Your task to perform on an android device: Open calendar and show me the fourth week of next month Image 0: 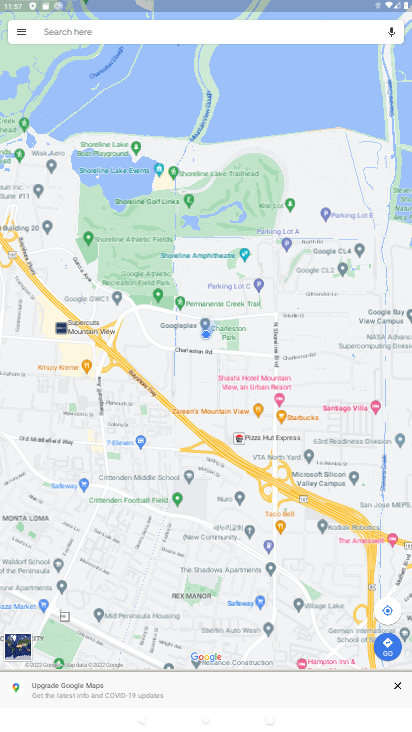
Step 0: press home button
Your task to perform on an android device: Open calendar and show me the fourth week of next month Image 1: 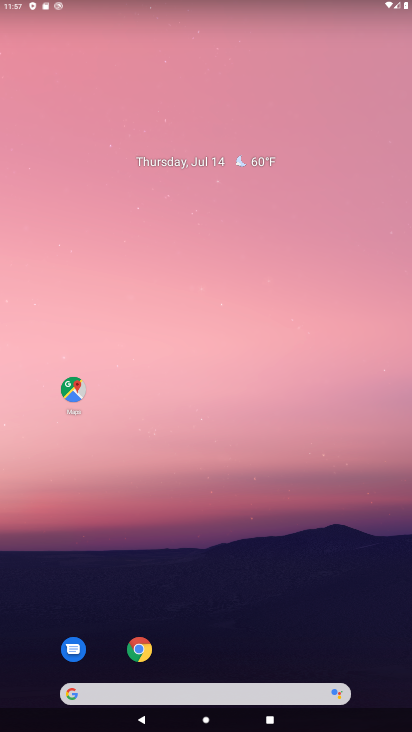
Step 1: drag from (190, 673) to (190, 391)
Your task to perform on an android device: Open calendar and show me the fourth week of next month Image 2: 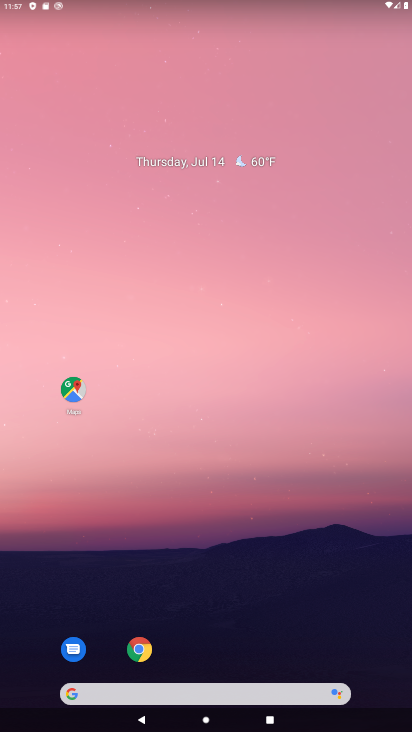
Step 2: drag from (225, 692) to (203, 168)
Your task to perform on an android device: Open calendar and show me the fourth week of next month Image 3: 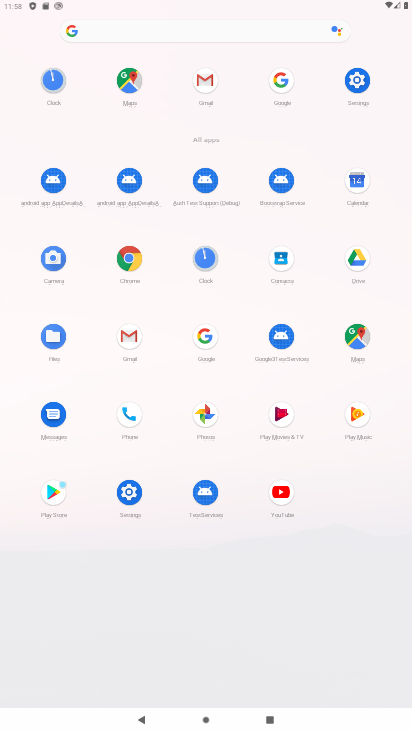
Step 3: click (352, 176)
Your task to perform on an android device: Open calendar and show me the fourth week of next month Image 4: 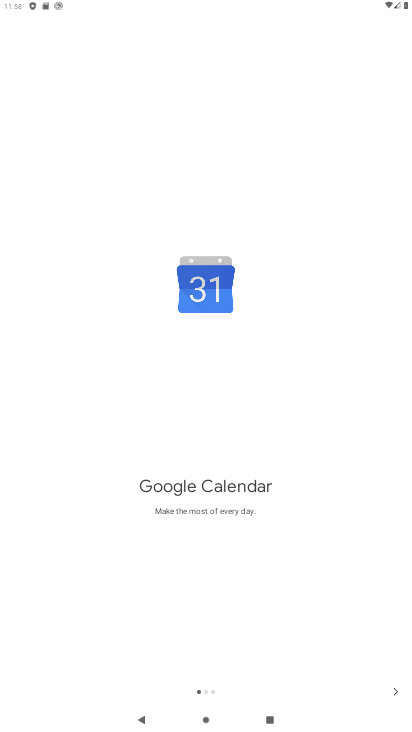
Step 4: click (387, 692)
Your task to perform on an android device: Open calendar and show me the fourth week of next month Image 5: 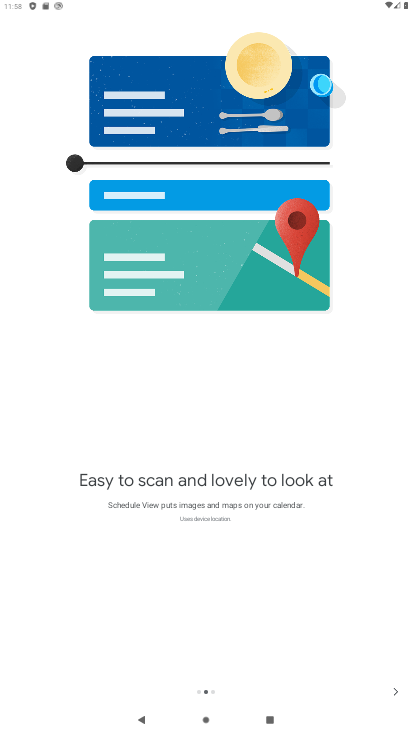
Step 5: click (387, 692)
Your task to perform on an android device: Open calendar and show me the fourth week of next month Image 6: 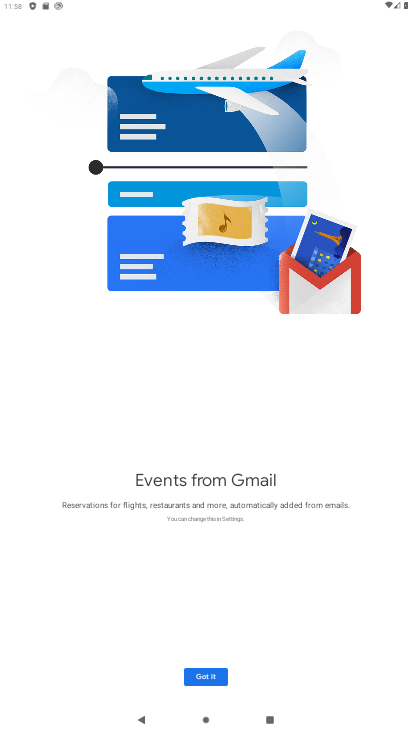
Step 6: click (218, 667)
Your task to perform on an android device: Open calendar and show me the fourth week of next month Image 7: 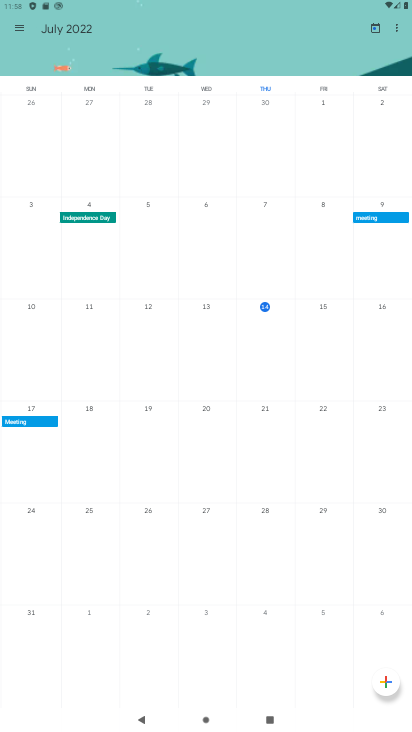
Step 7: click (15, 30)
Your task to perform on an android device: Open calendar and show me the fourth week of next month Image 8: 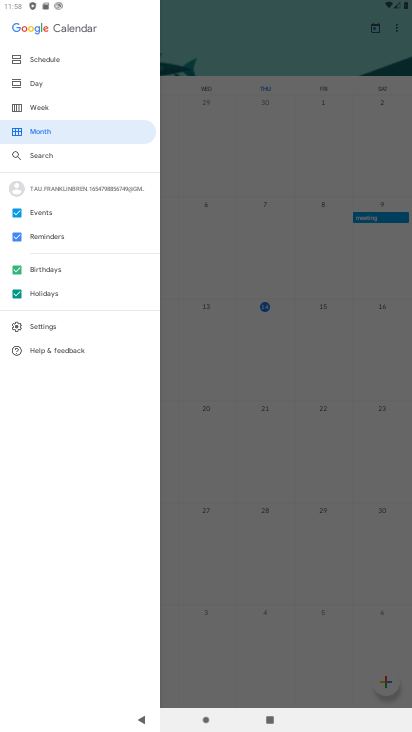
Step 8: click (337, 224)
Your task to perform on an android device: Open calendar and show me the fourth week of next month Image 9: 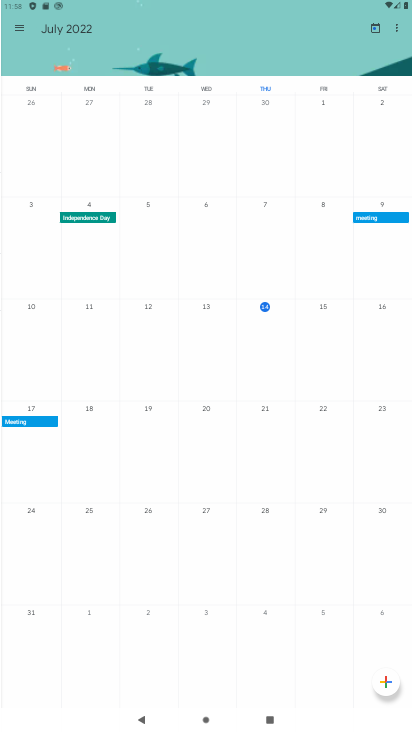
Step 9: task complete